Your task to perform on an android device: delete location history Image 0: 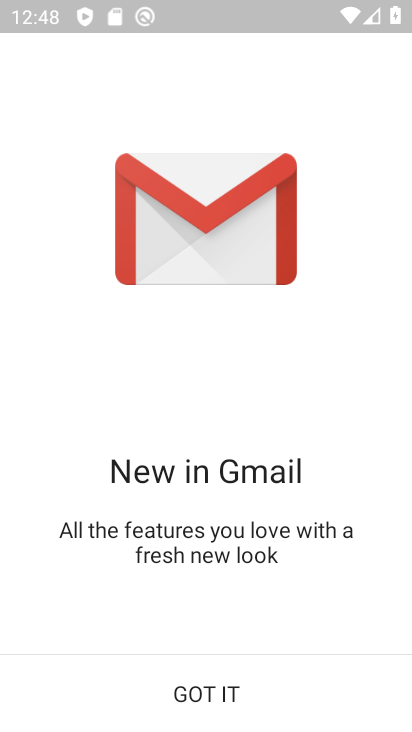
Step 0: press home button
Your task to perform on an android device: delete location history Image 1: 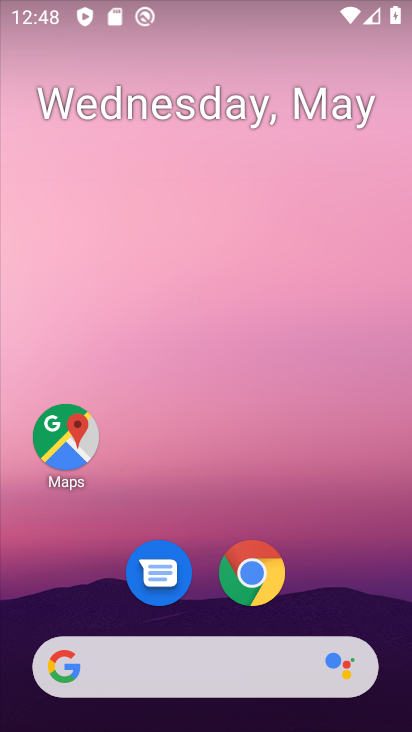
Step 1: click (64, 426)
Your task to perform on an android device: delete location history Image 2: 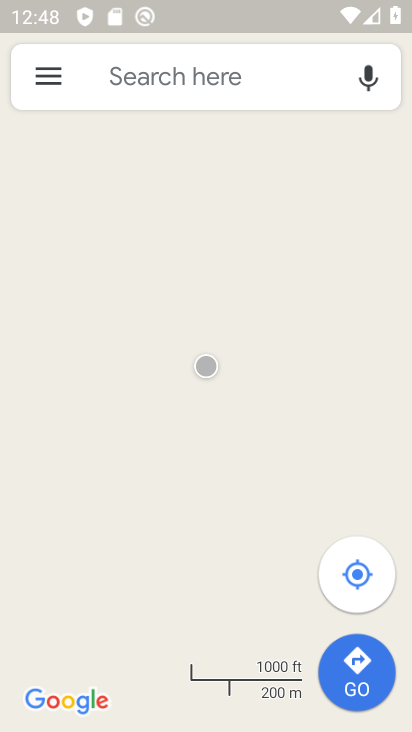
Step 2: click (54, 67)
Your task to perform on an android device: delete location history Image 3: 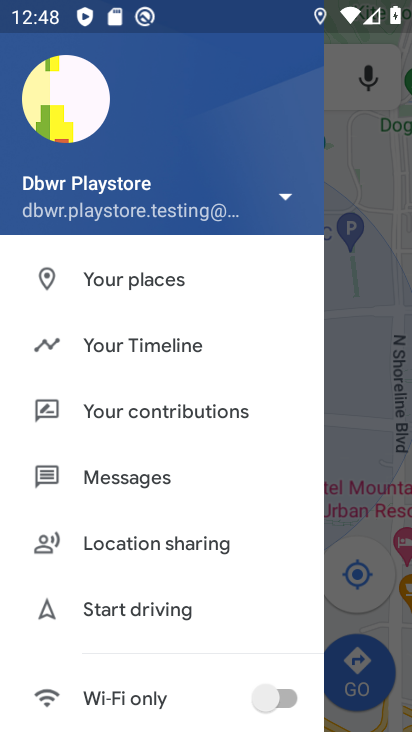
Step 3: drag from (244, 639) to (266, 220)
Your task to perform on an android device: delete location history Image 4: 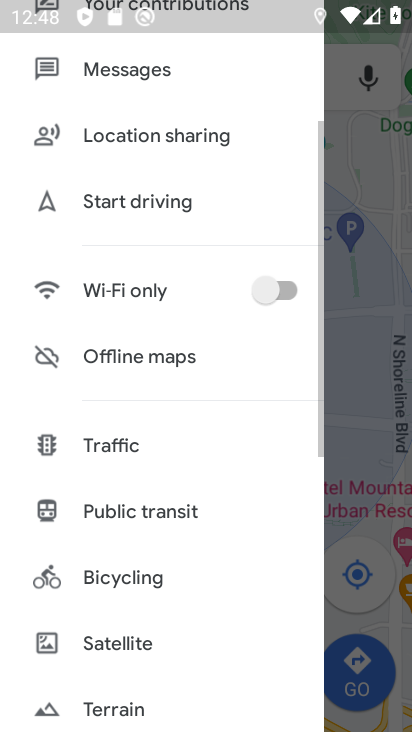
Step 4: drag from (186, 624) to (227, 149)
Your task to perform on an android device: delete location history Image 5: 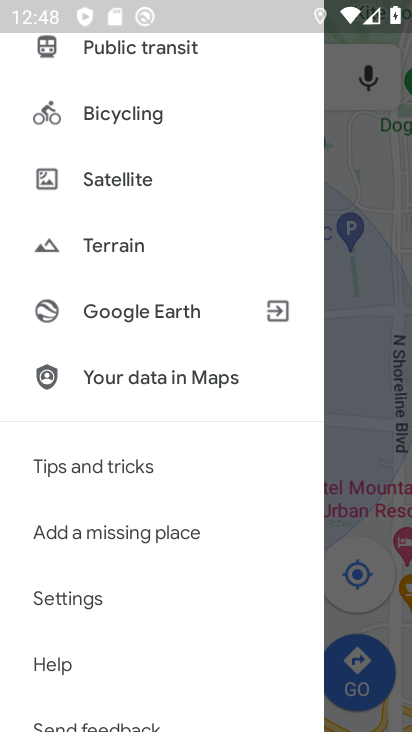
Step 5: click (78, 596)
Your task to perform on an android device: delete location history Image 6: 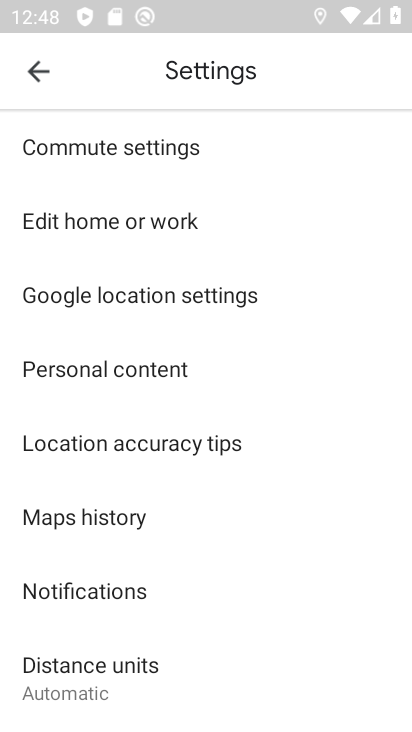
Step 6: click (114, 349)
Your task to perform on an android device: delete location history Image 7: 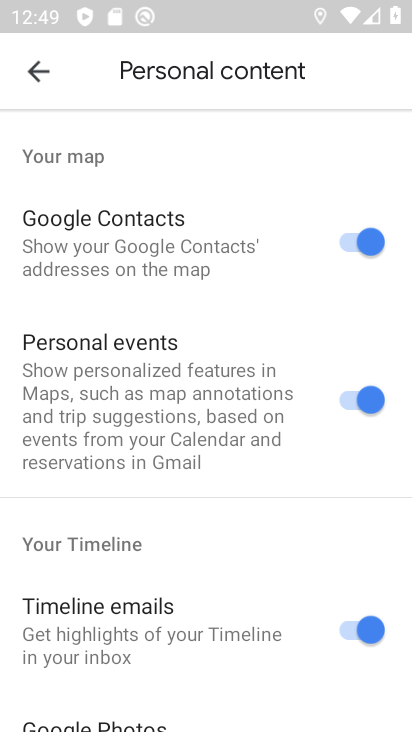
Step 7: drag from (201, 585) to (339, 132)
Your task to perform on an android device: delete location history Image 8: 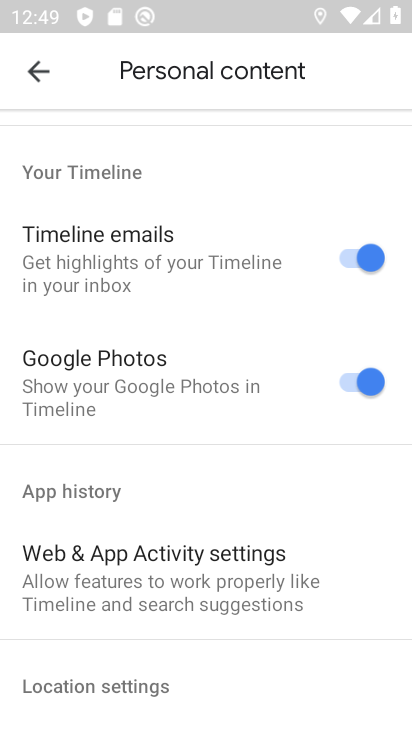
Step 8: drag from (278, 571) to (293, 158)
Your task to perform on an android device: delete location history Image 9: 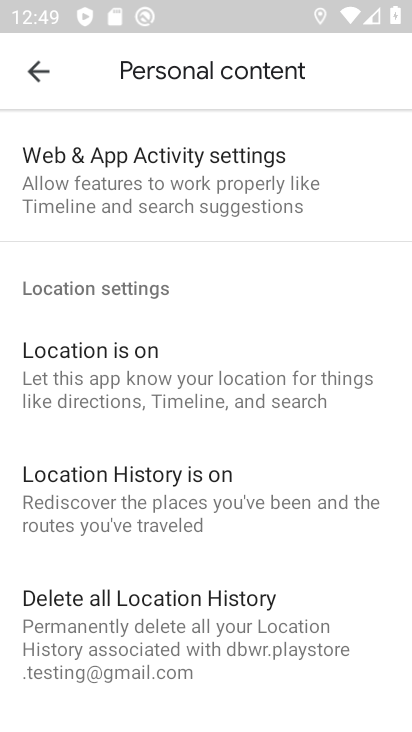
Step 9: click (98, 619)
Your task to perform on an android device: delete location history Image 10: 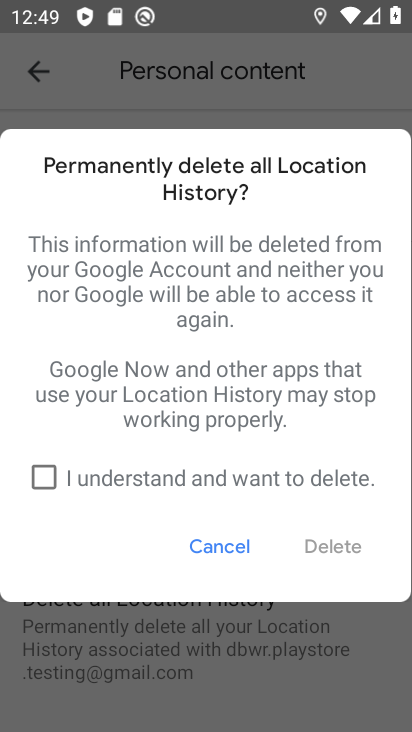
Step 10: click (46, 479)
Your task to perform on an android device: delete location history Image 11: 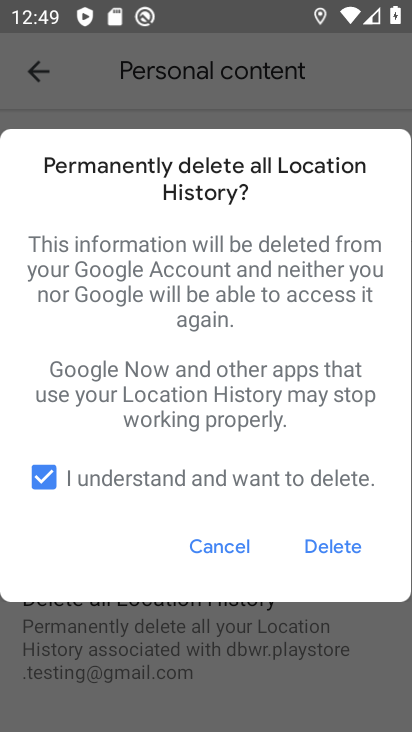
Step 11: click (341, 551)
Your task to perform on an android device: delete location history Image 12: 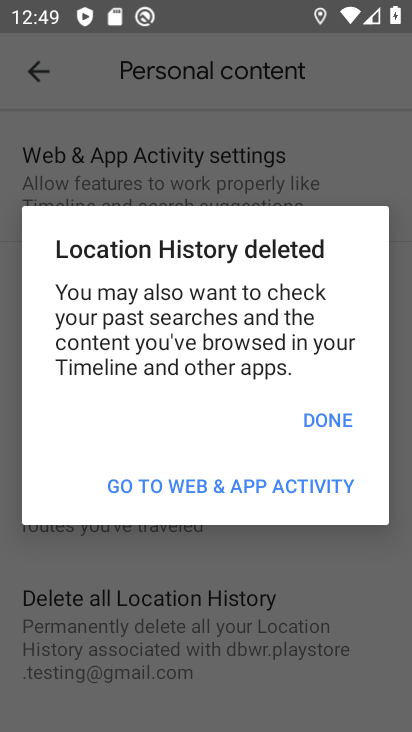
Step 12: click (333, 424)
Your task to perform on an android device: delete location history Image 13: 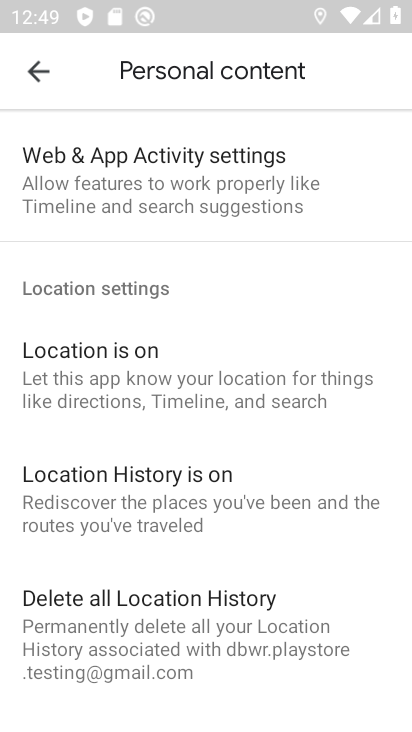
Step 13: click (218, 595)
Your task to perform on an android device: delete location history Image 14: 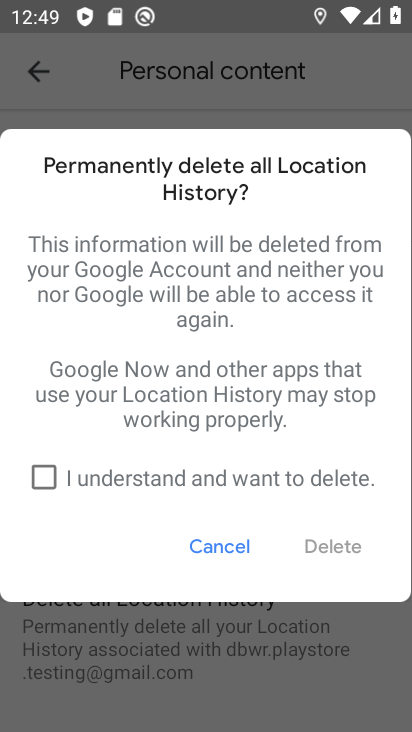
Step 14: task complete